Your task to perform on an android device: see sites visited before in the chrome app Image 0: 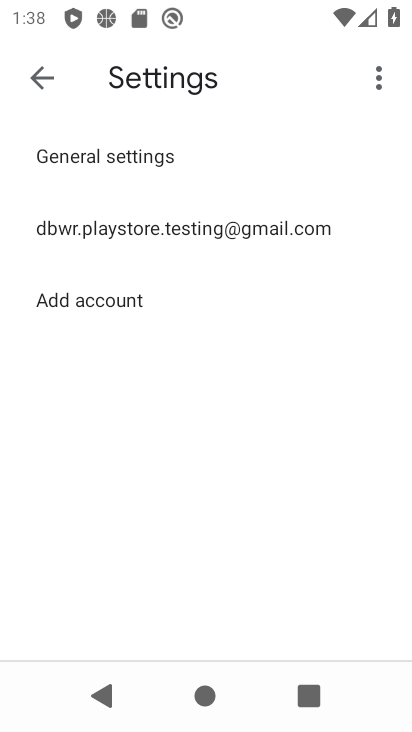
Step 0: press home button
Your task to perform on an android device: see sites visited before in the chrome app Image 1: 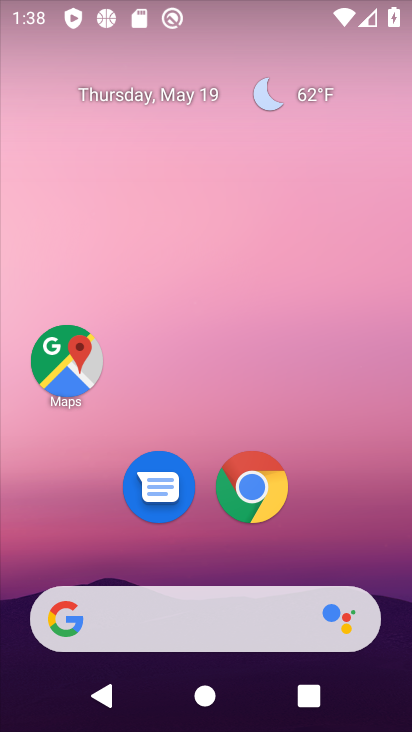
Step 1: drag from (359, 457) to (360, 64)
Your task to perform on an android device: see sites visited before in the chrome app Image 2: 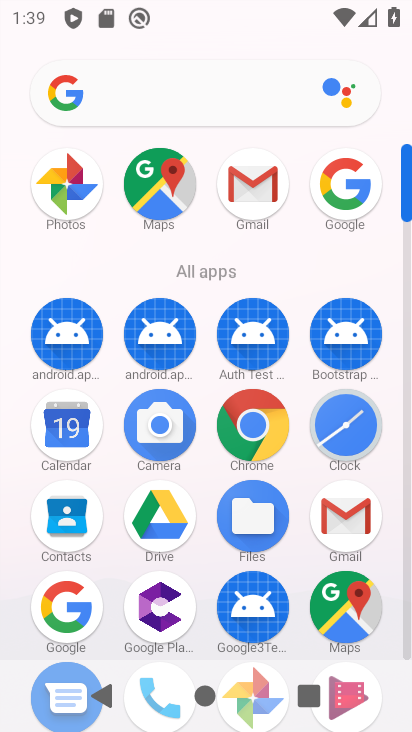
Step 2: click (246, 396)
Your task to perform on an android device: see sites visited before in the chrome app Image 3: 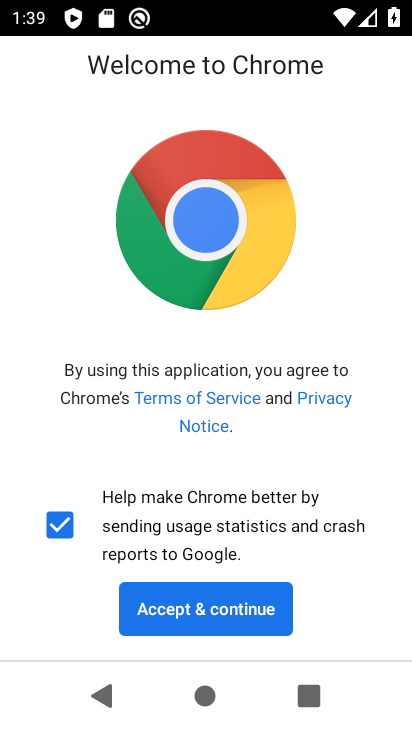
Step 3: click (191, 609)
Your task to perform on an android device: see sites visited before in the chrome app Image 4: 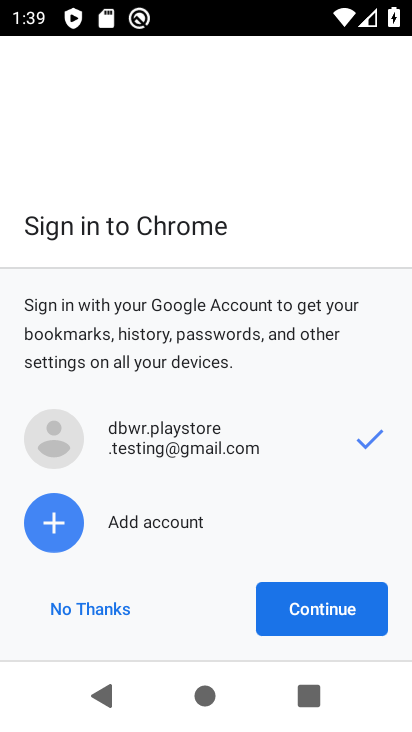
Step 4: click (317, 598)
Your task to perform on an android device: see sites visited before in the chrome app Image 5: 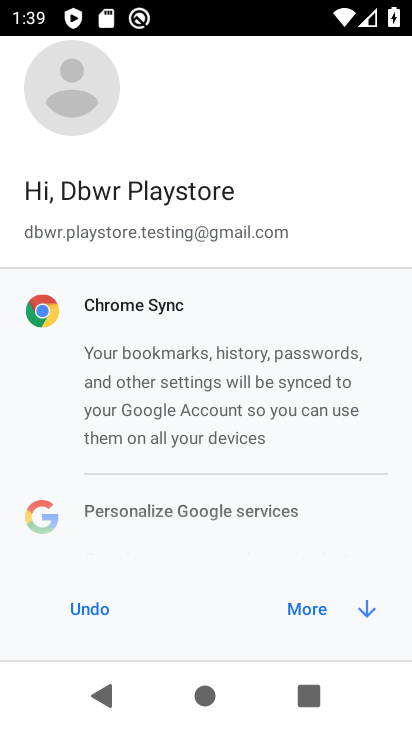
Step 5: click (317, 598)
Your task to perform on an android device: see sites visited before in the chrome app Image 6: 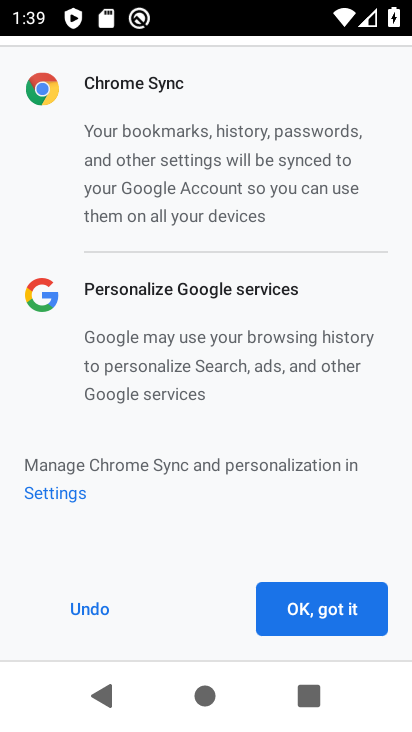
Step 6: click (317, 598)
Your task to perform on an android device: see sites visited before in the chrome app Image 7: 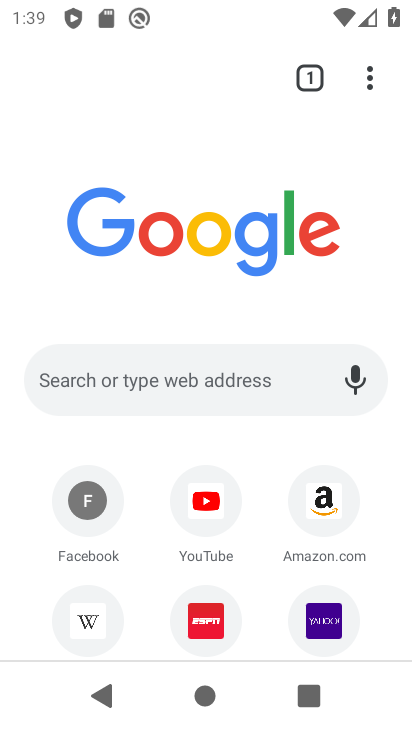
Step 7: task complete